Your task to perform on an android device: Open Wikipedia Image 0: 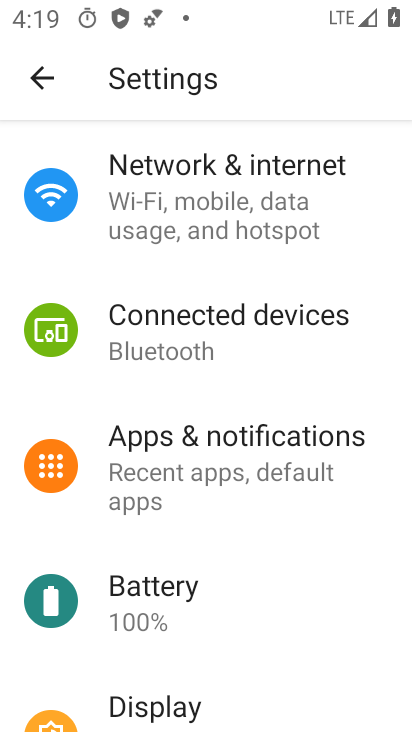
Step 0: press home button
Your task to perform on an android device: Open Wikipedia Image 1: 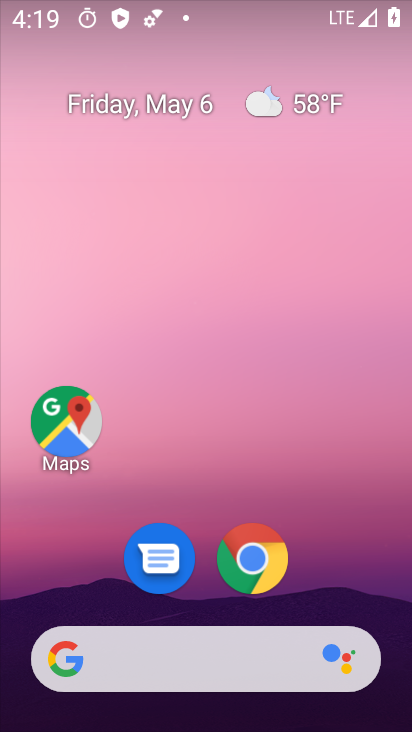
Step 1: drag from (269, 621) to (315, 124)
Your task to perform on an android device: Open Wikipedia Image 2: 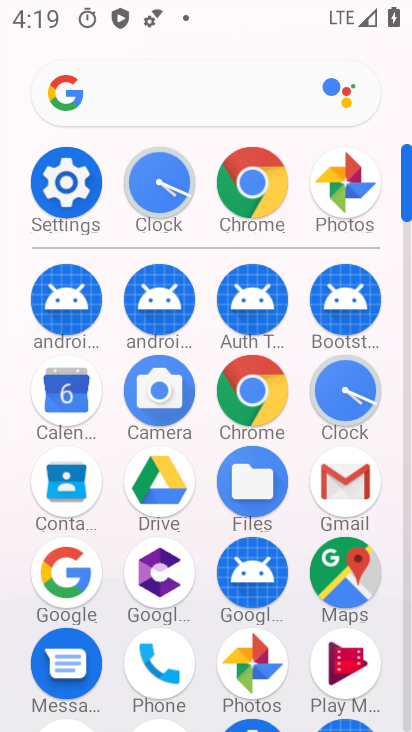
Step 2: click (266, 396)
Your task to perform on an android device: Open Wikipedia Image 3: 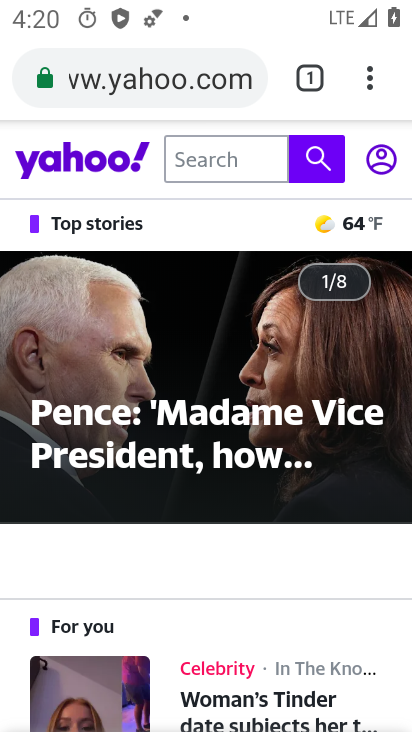
Step 3: click (208, 76)
Your task to perform on an android device: Open Wikipedia Image 4: 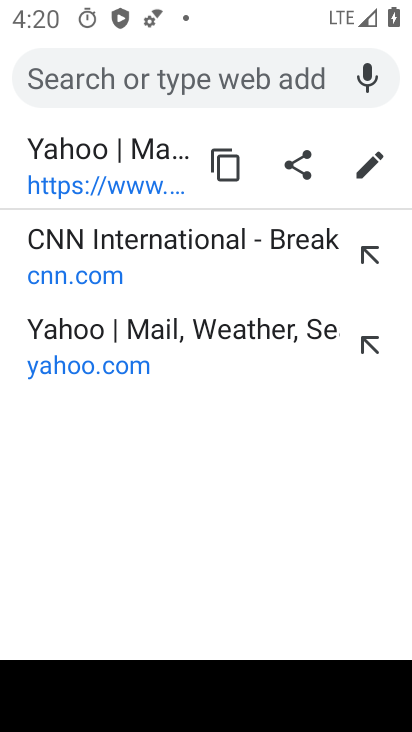
Step 4: type "wikipedia"
Your task to perform on an android device: Open Wikipedia Image 5: 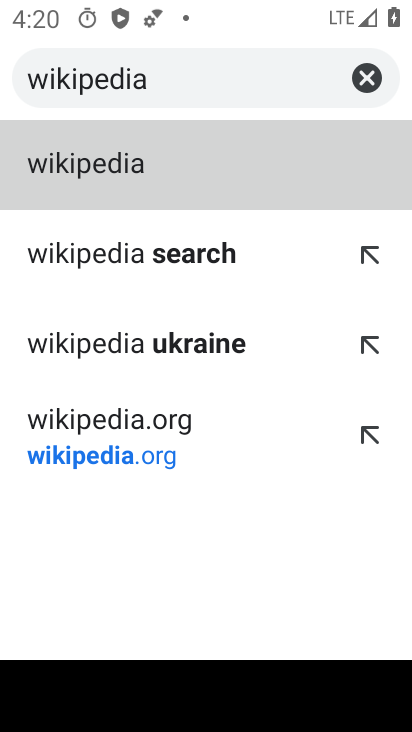
Step 5: click (192, 184)
Your task to perform on an android device: Open Wikipedia Image 6: 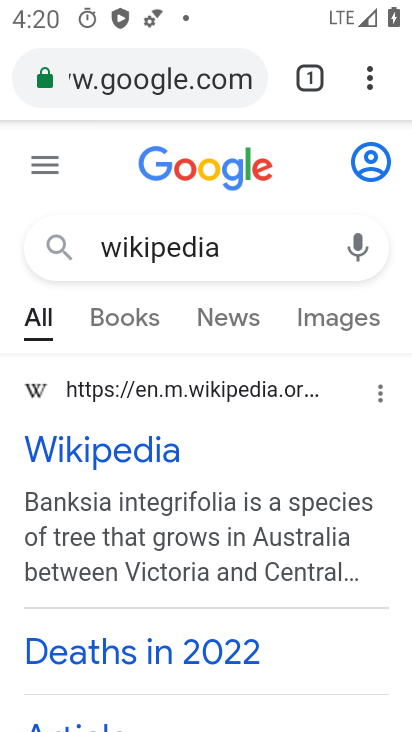
Step 6: task complete